Your task to perform on an android device: open device folders in google photos Image 0: 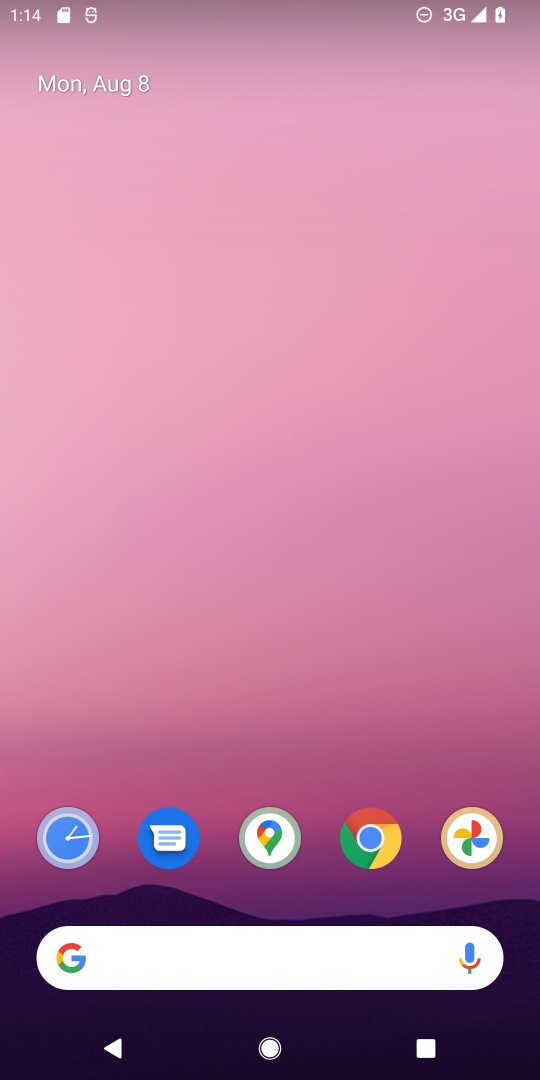
Step 0: press home button
Your task to perform on an android device: open device folders in google photos Image 1: 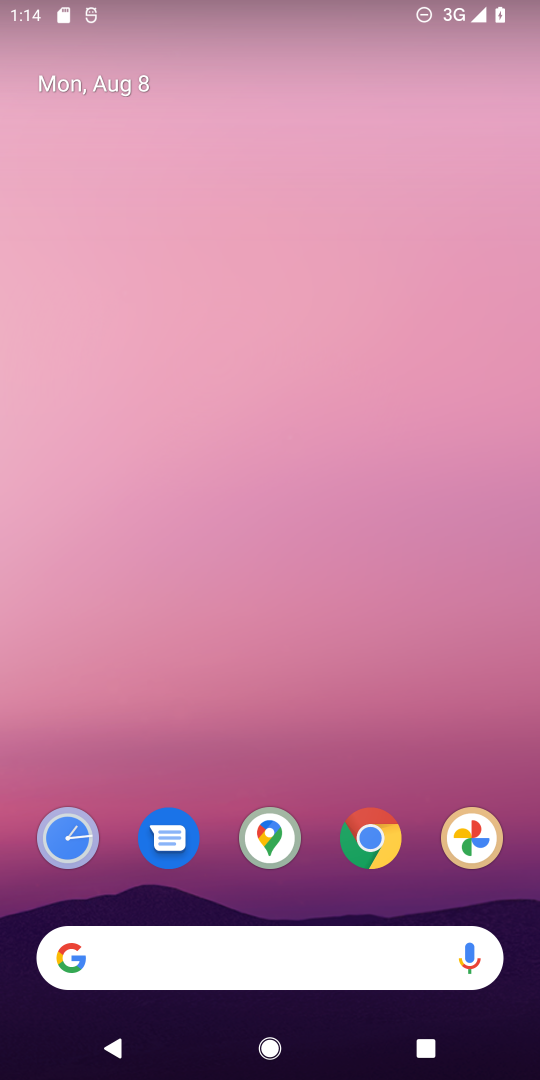
Step 1: click (465, 838)
Your task to perform on an android device: open device folders in google photos Image 2: 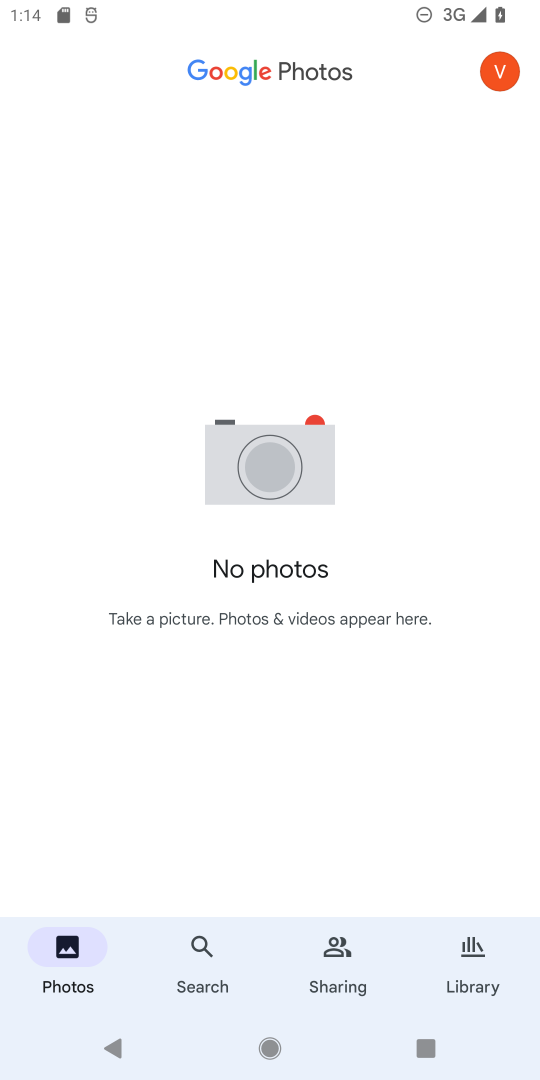
Step 2: click (209, 946)
Your task to perform on an android device: open device folders in google photos Image 3: 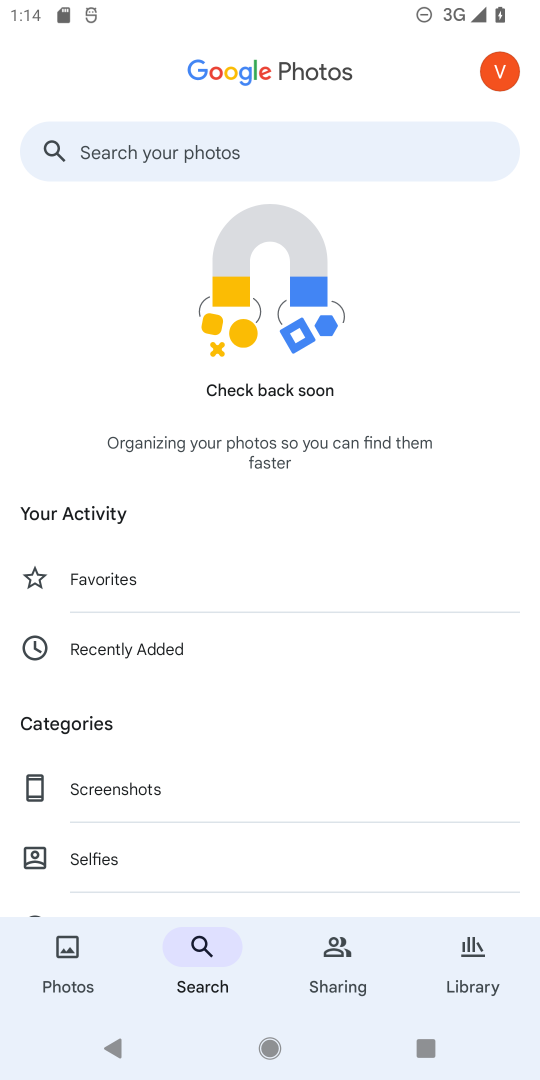
Step 3: task complete